Your task to perform on an android device: Open network settings Image 0: 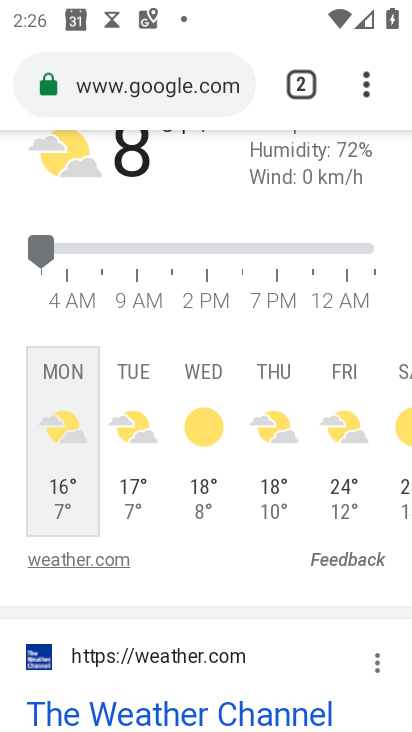
Step 0: press home button
Your task to perform on an android device: Open network settings Image 1: 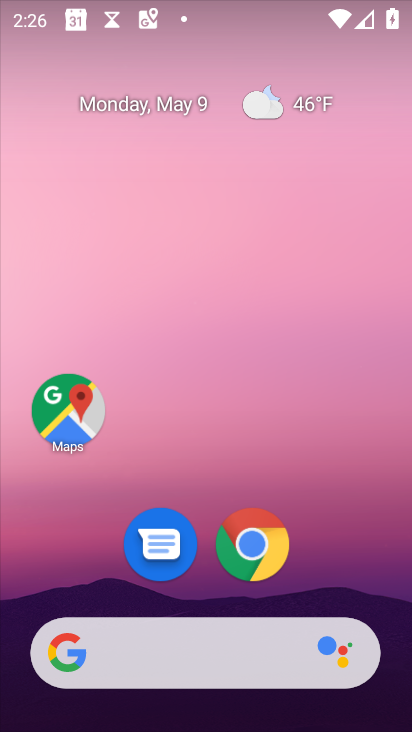
Step 1: drag from (214, 413) to (21, 16)
Your task to perform on an android device: Open network settings Image 2: 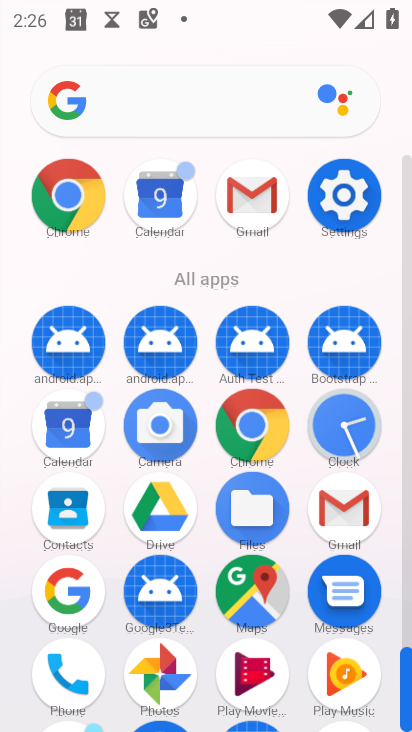
Step 2: click (341, 203)
Your task to perform on an android device: Open network settings Image 3: 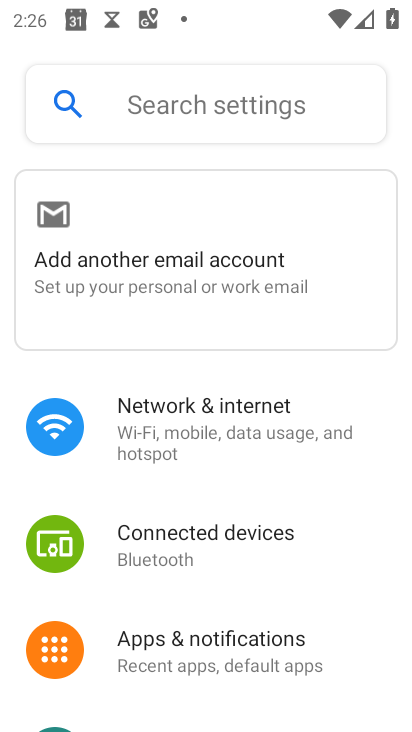
Step 3: click (206, 412)
Your task to perform on an android device: Open network settings Image 4: 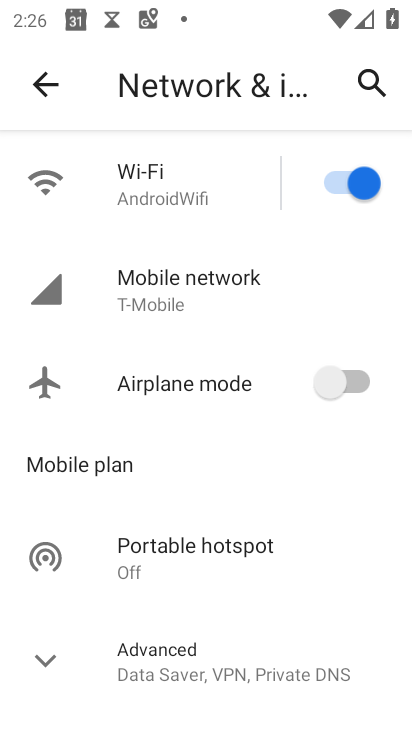
Step 4: click (245, 283)
Your task to perform on an android device: Open network settings Image 5: 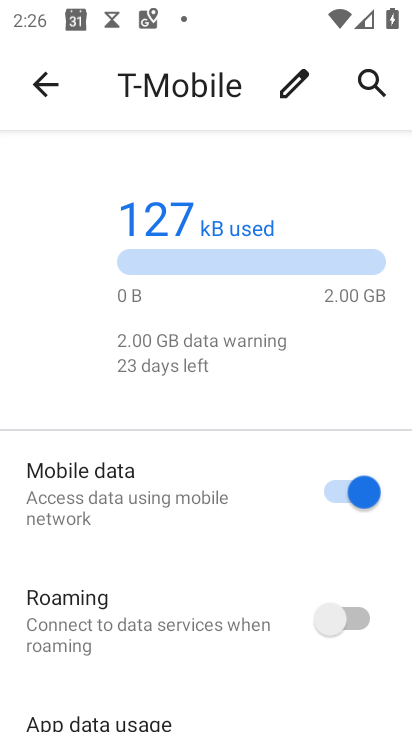
Step 5: task complete